Your task to perform on an android device: Go to Amazon Image 0: 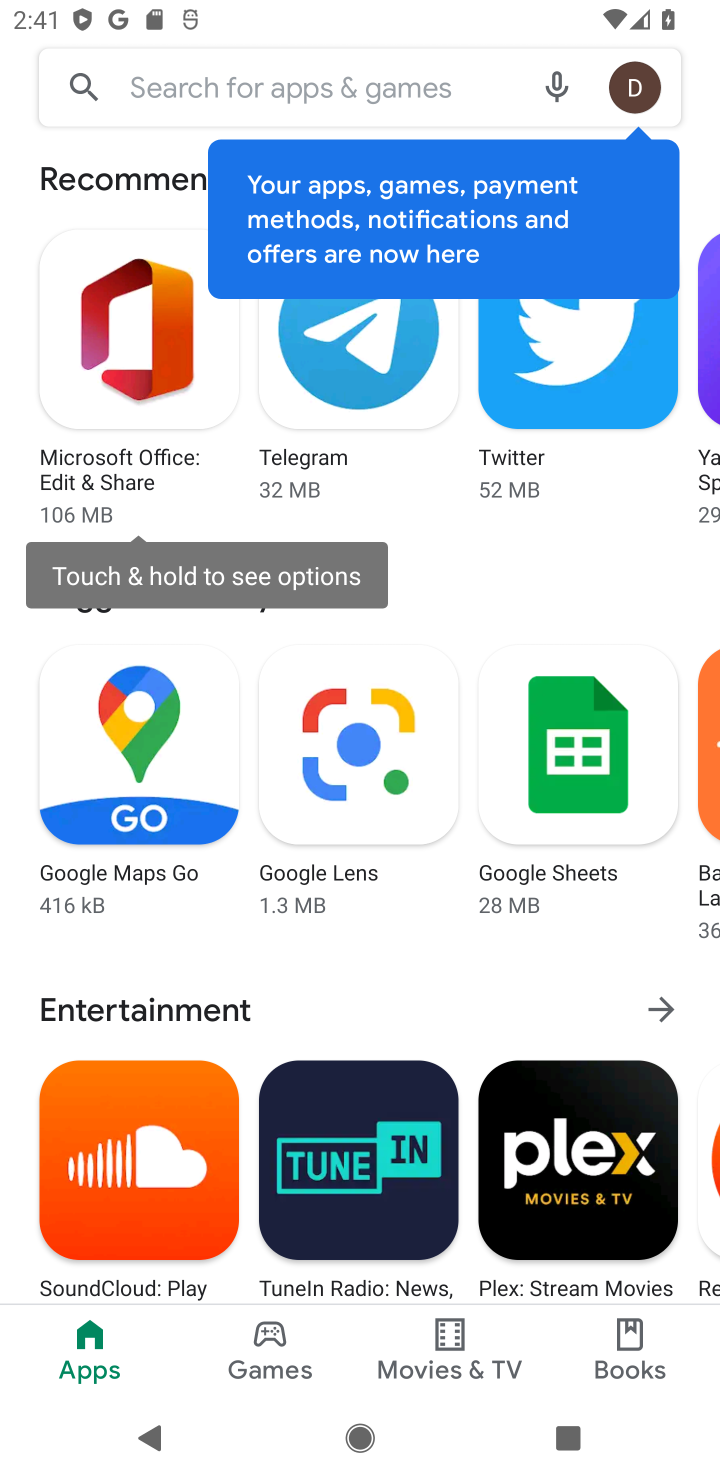
Step 0: press home button
Your task to perform on an android device: Go to Amazon Image 1: 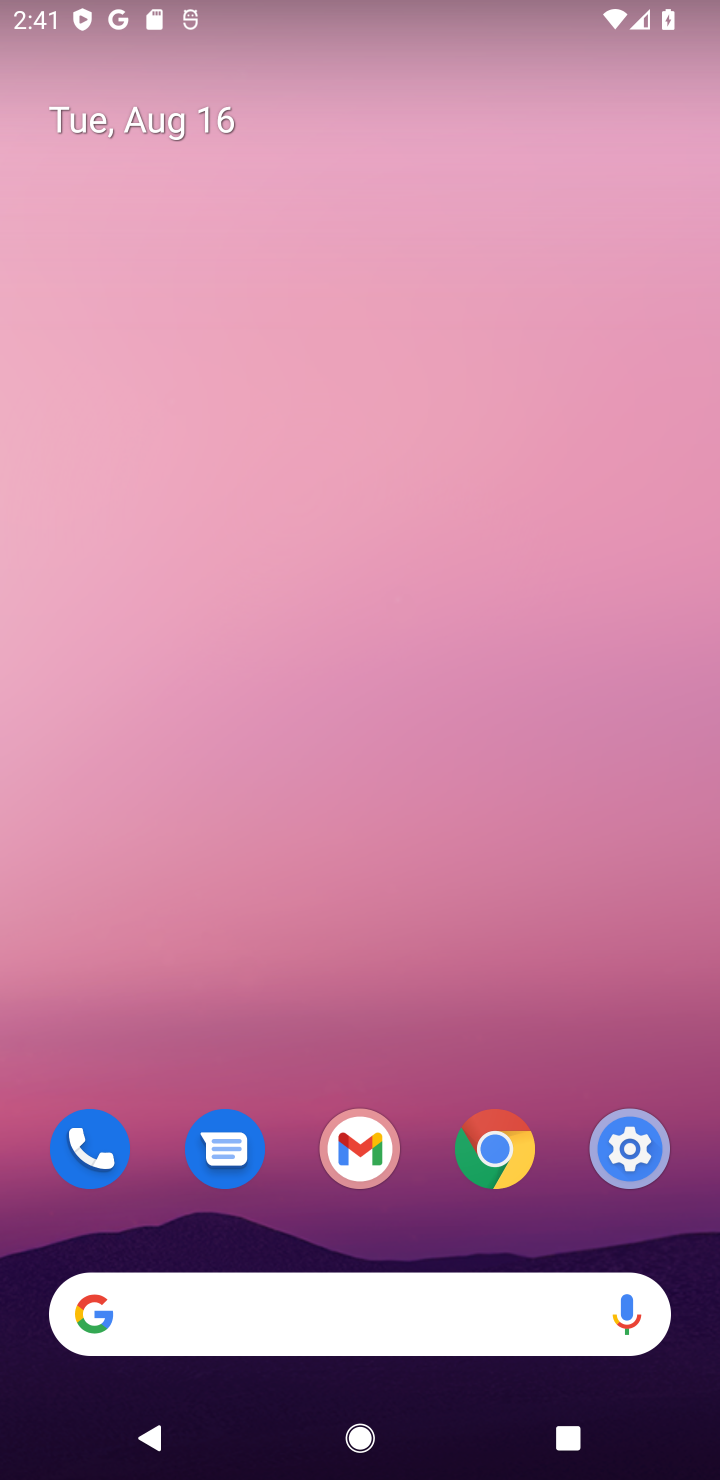
Step 1: click (498, 1137)
Your task to perform on an android device: Go to Amazon Image 2: 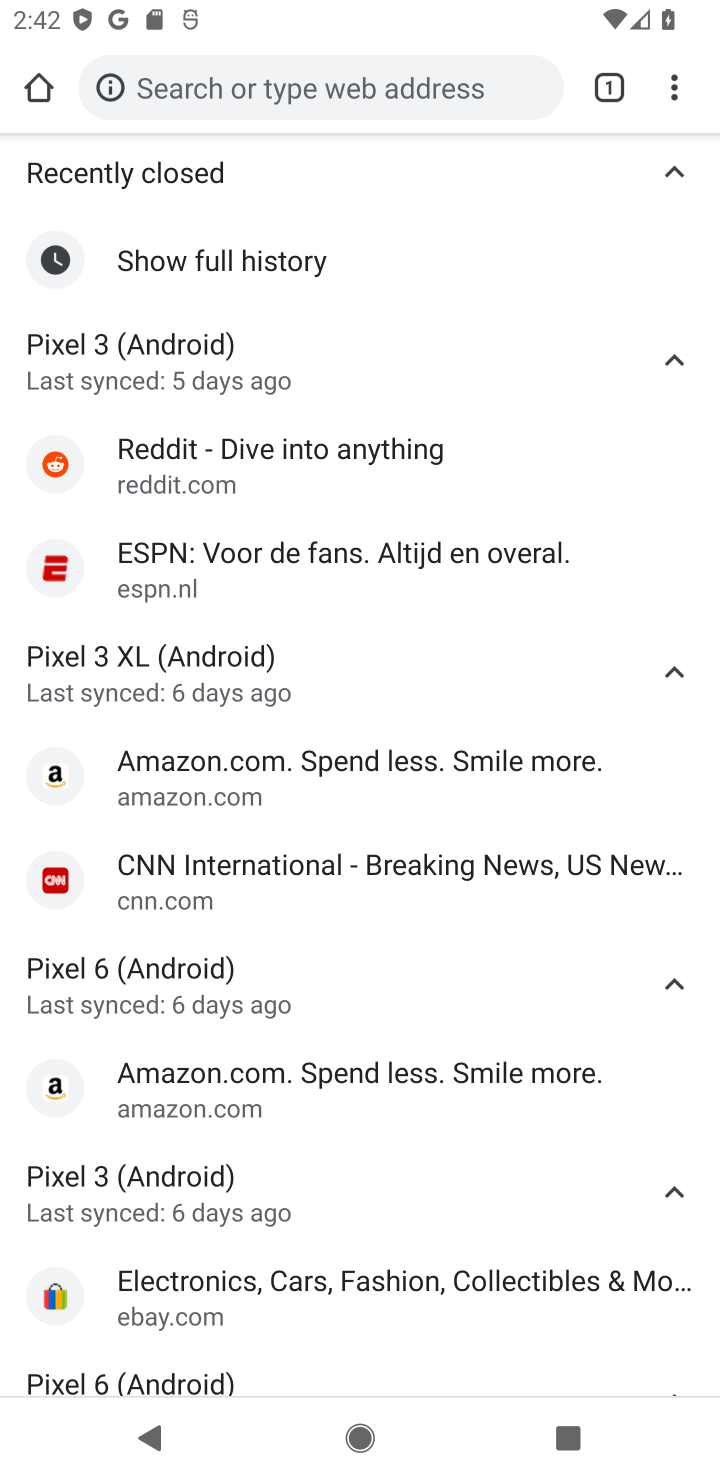
Step 2: press back button
Your task to perform on an android device: Go to Amazon Image 3: 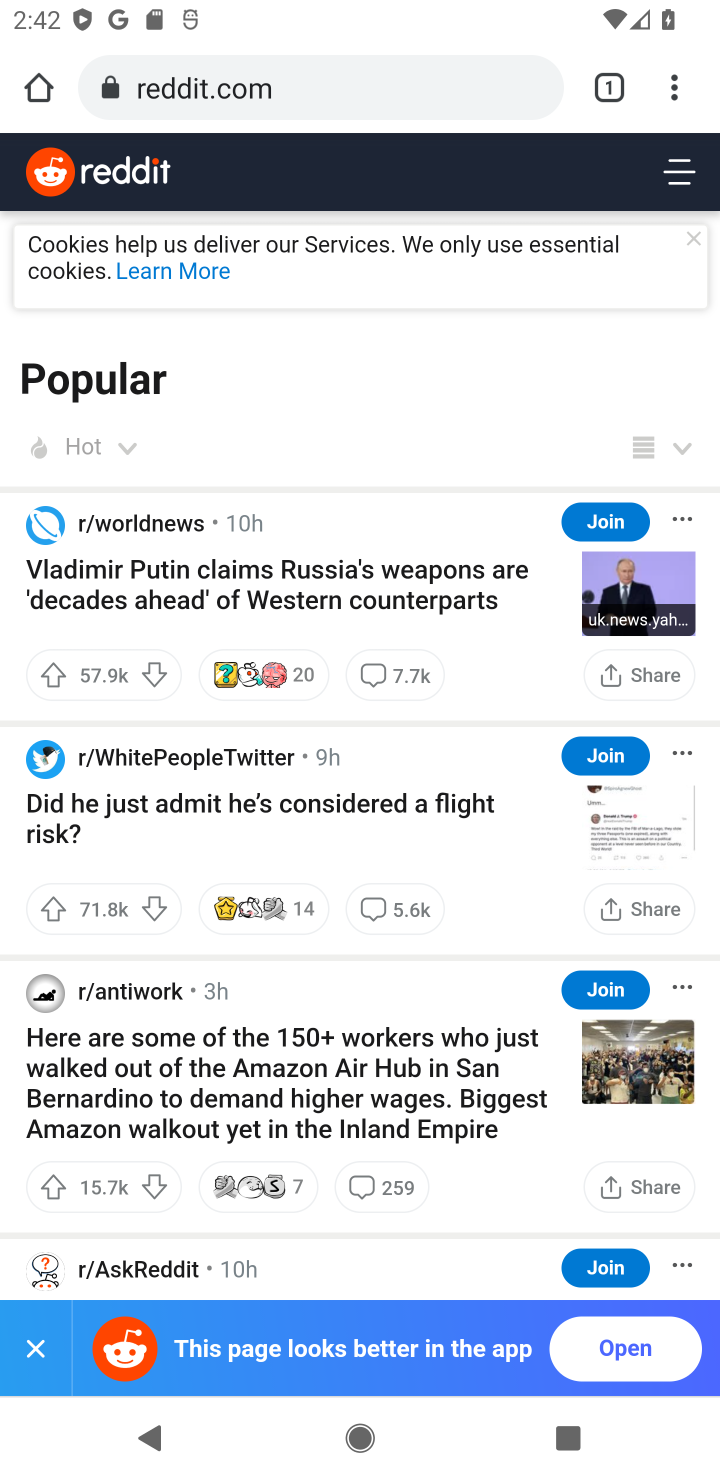
Step 3: press back button
Your task to perform on an android device: Go to Amazon Image 4: 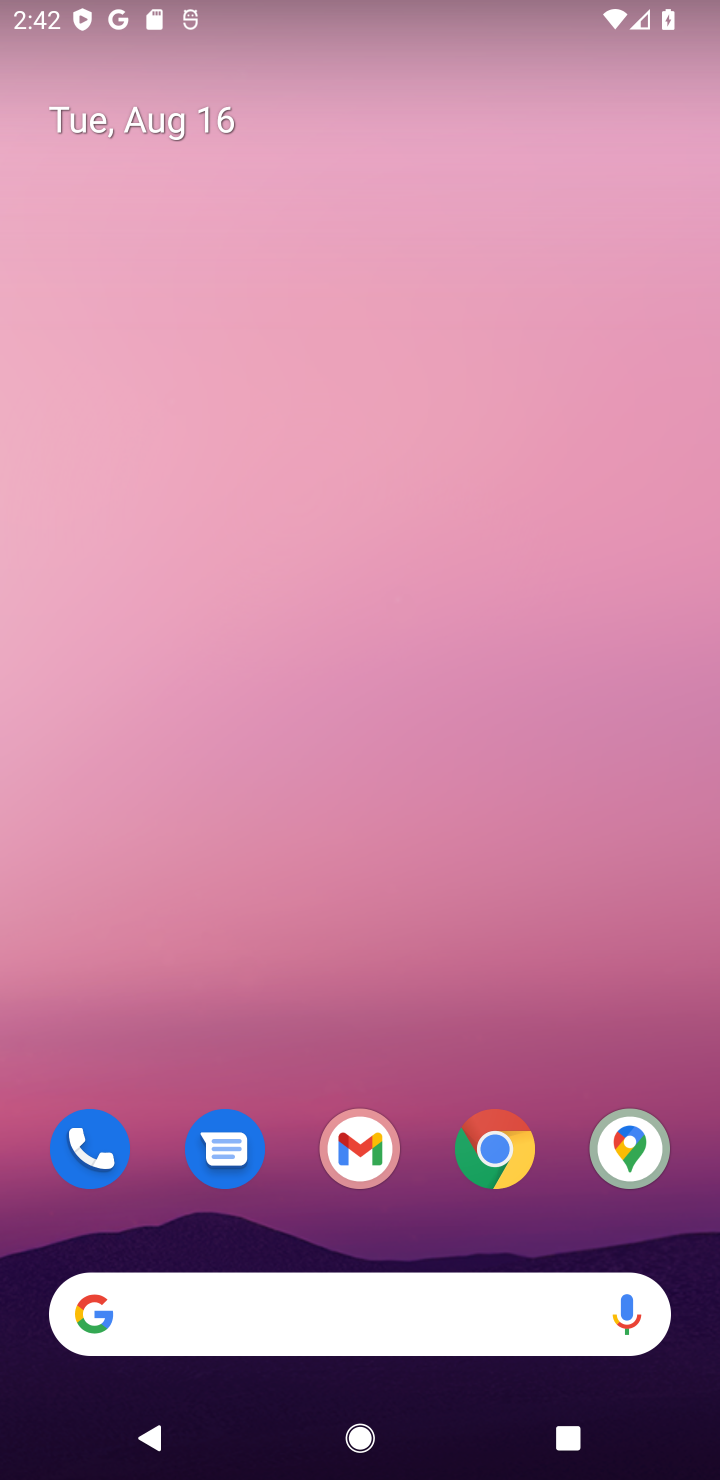
Step 4: click (500, 1147)
Your task to perform on an android device: Go to Amazon Image 5: 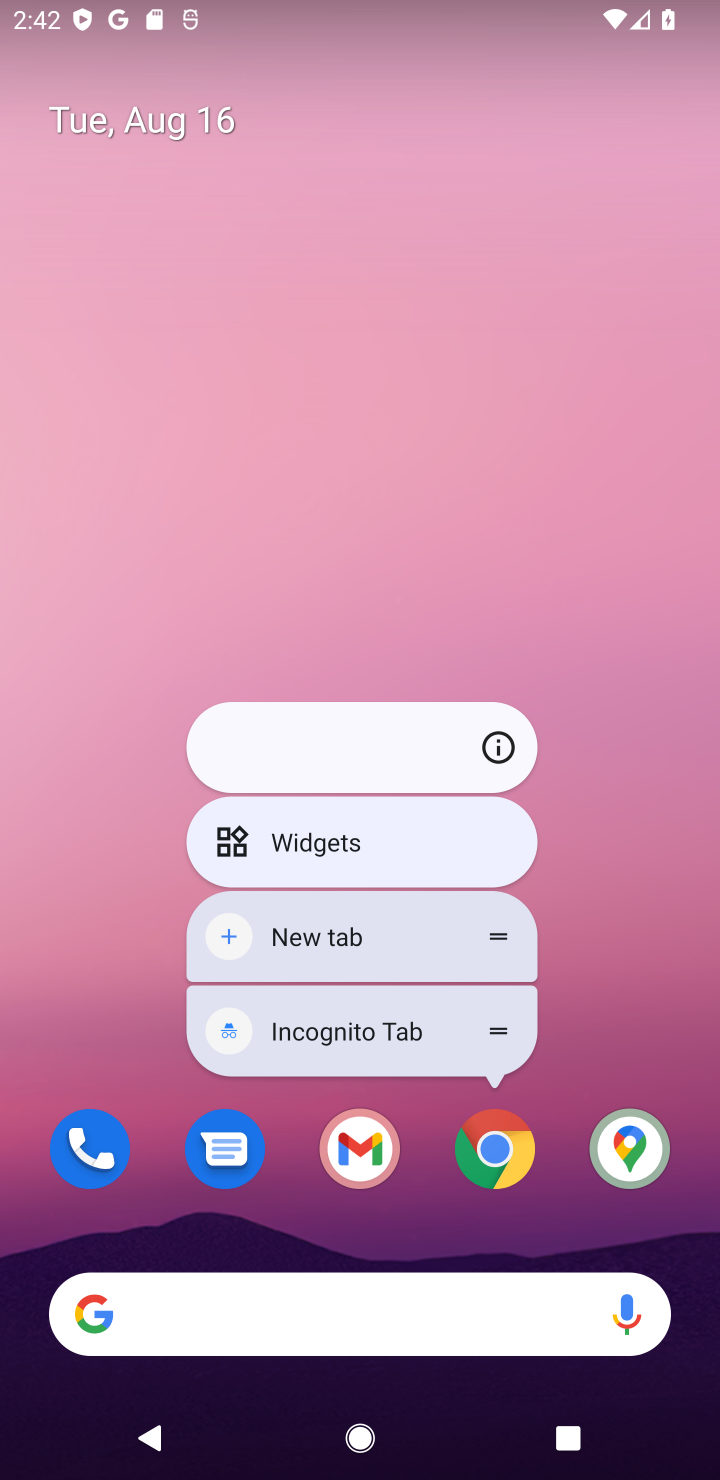
Step 5: click (503, 1140)
Your task to perform on an android device: Go to Amazon Image 6: 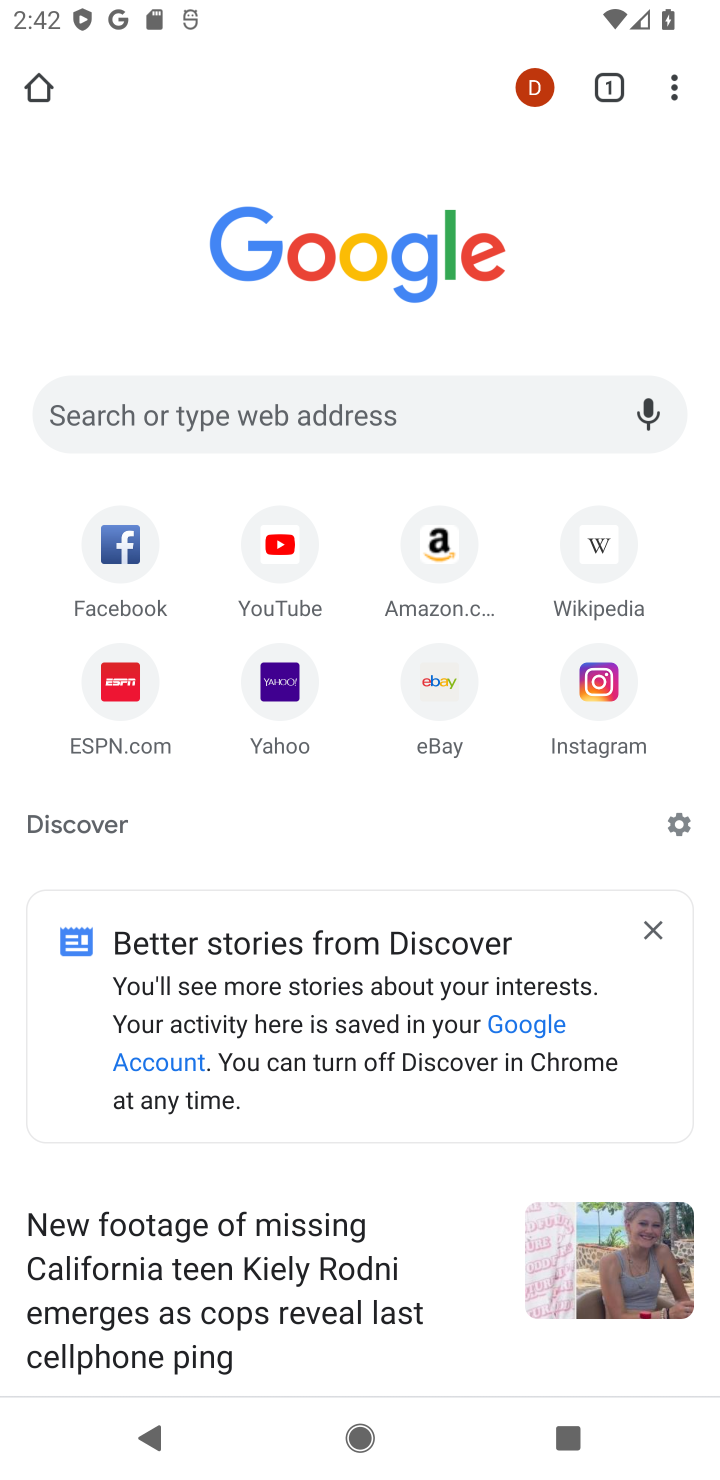
Step 6: click (445, 537)
Your task to perform on an android device: Go to Amazon Image 7: 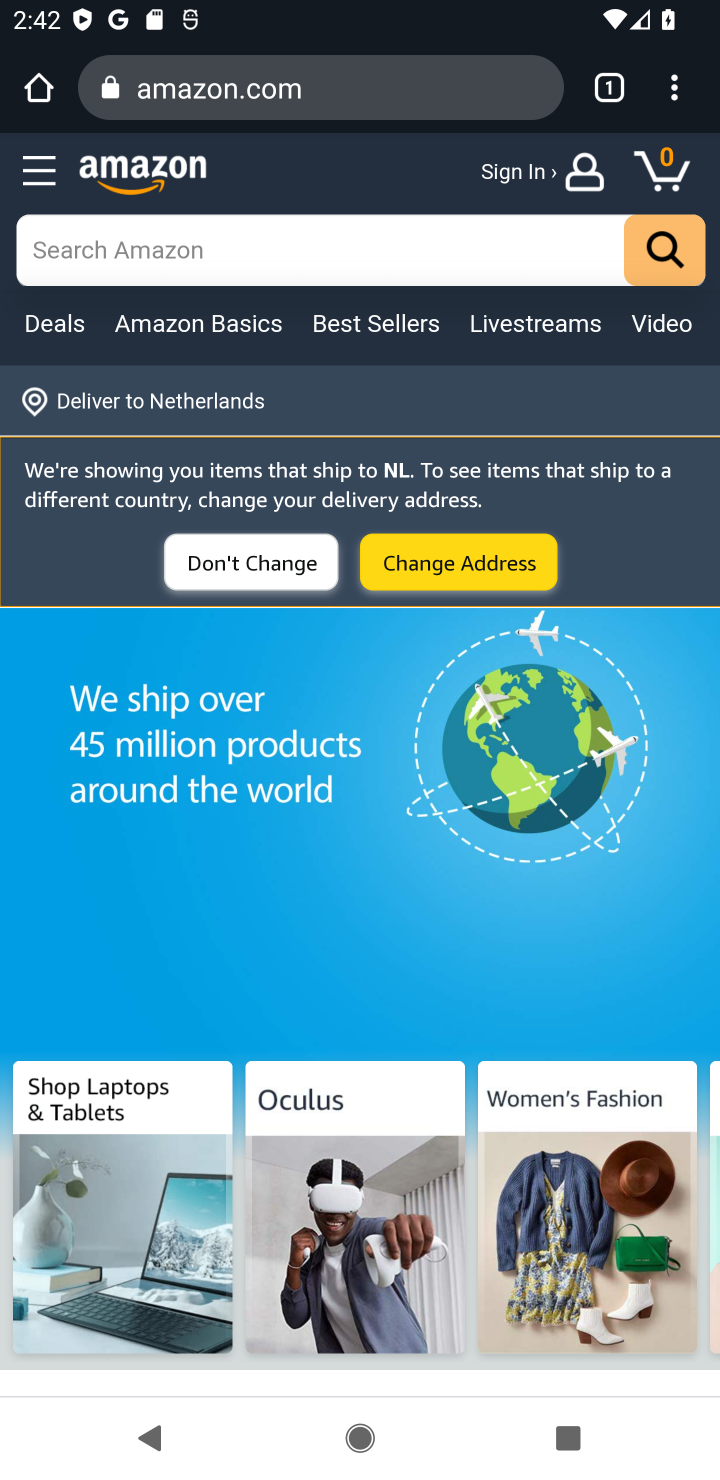
Step 7: task complete